Your task to perform on an android device: turn on showing notifications on the lock screen Image 0: 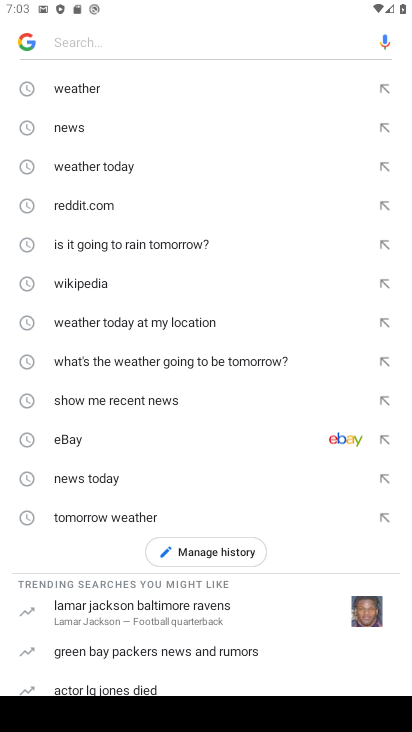
Step 0: press home button
Your task to perform on an android device: turn on showing notifications on the lock screen Image 1: 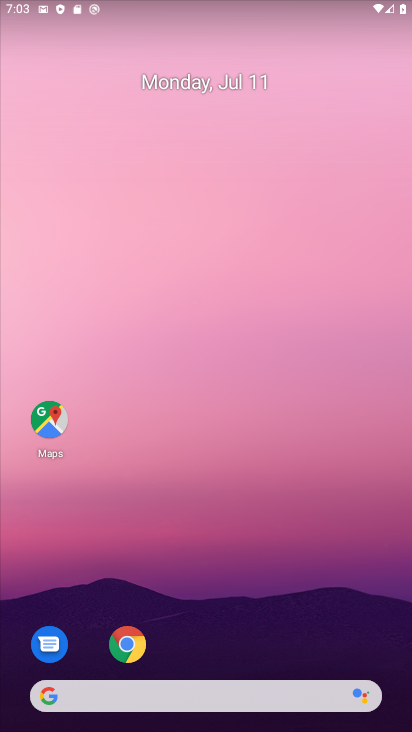
Step 1: drag from (210, 551) to (148, 203)
Your task to perform on an android device: turn on showing notifications on the lock screen Image 2: 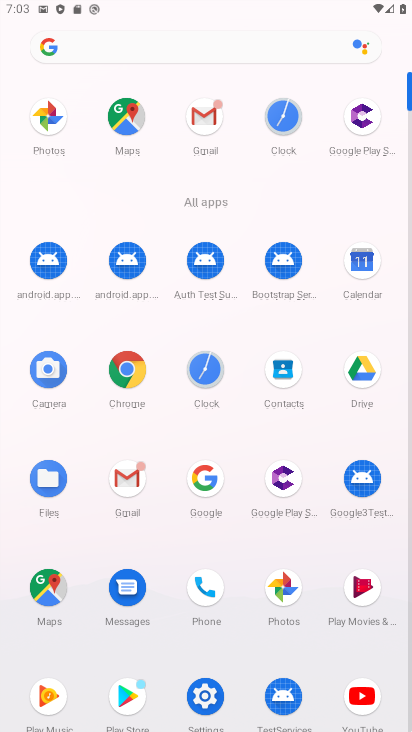
Step 2: click (206, 684)
Your task to perform on an android device: turn on showing notifications on the lock screen Image 3: 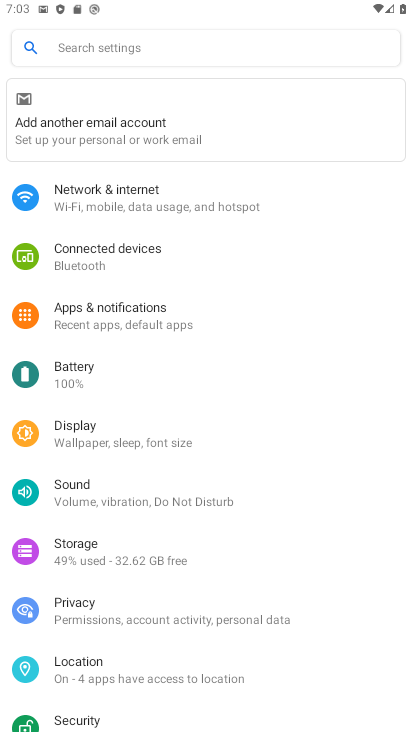
Step 3: click (123, 313)
Your task to perform on an android device: turn on showing notifications on the lock screen Image 4: 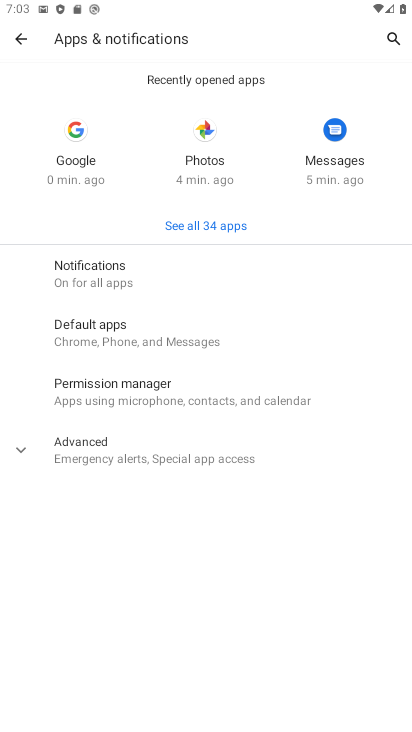
Step 4: click (87, 266)
Your task to perform on an android device: turn on showing notifications on the lock screen Image 5: 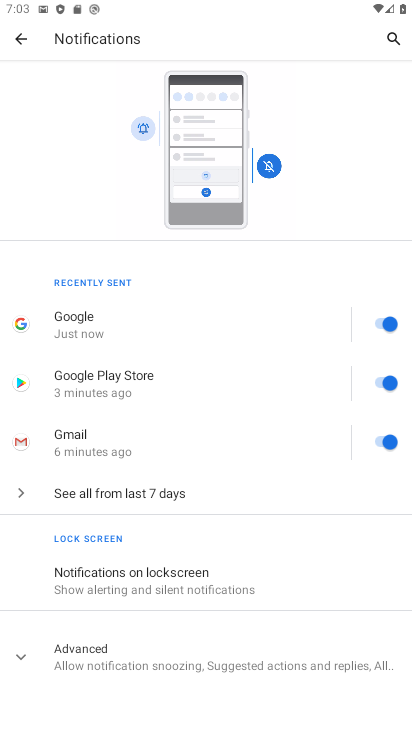
Step 5: click (157, 572)
Your task to perform on an android device: turn on showing notifications on the lock screen Image 6: 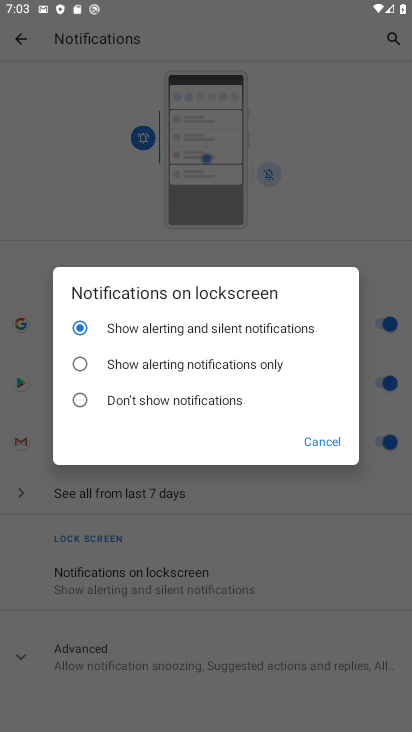
Step 6: task complete